Your task to perform on an android device: Play the last video I watched on Youtube Image 0: 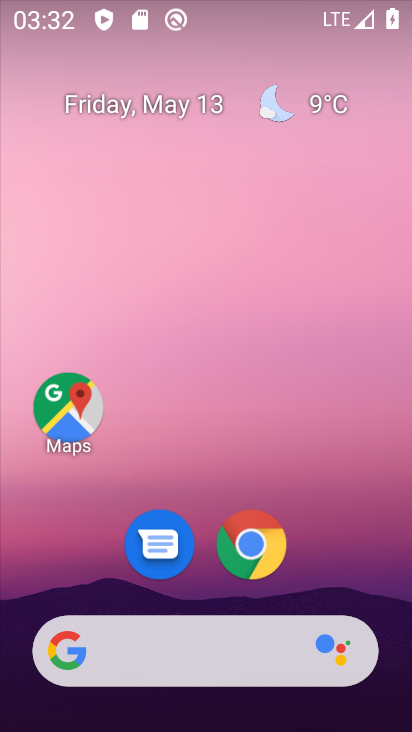
Step 0: drag from (346, 536) to (213, 9)
Your task to perform on an android device: Play the last video I watched on Youtube Image 1: 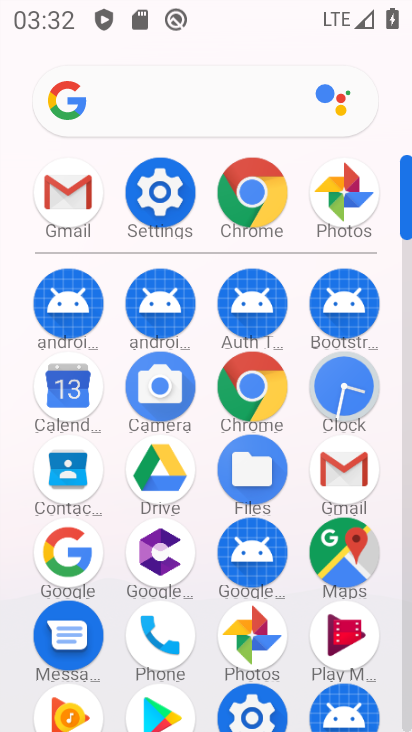
Step 1: drag from (1, 546) to (23, 306)
Your task to perform on an android device: Play the last video I watched on Youtube Image 2: 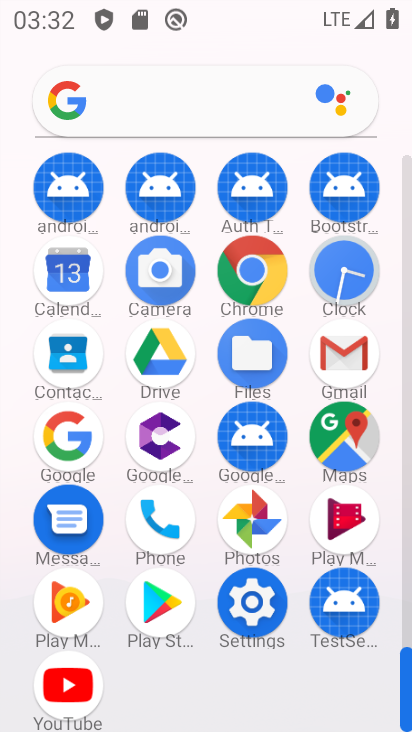
Step 2: click (71, 677)
Your task to perform on an android device: Play the last video I watched on Youtube Image 3: 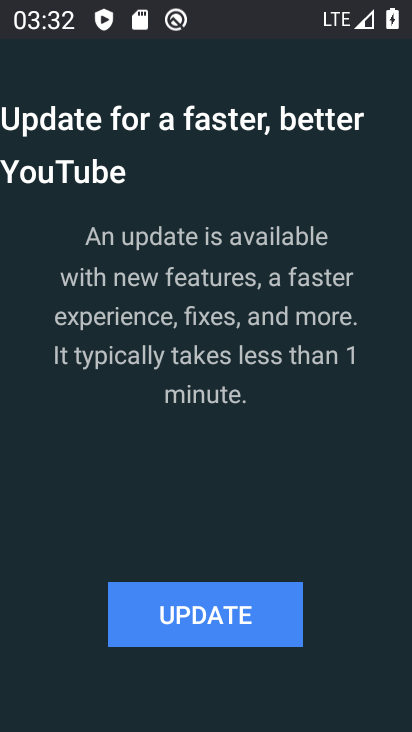
Step 3: click (239, 599)
Your task to perform on an android device: Play the last video I watched on Youtube Image 4: 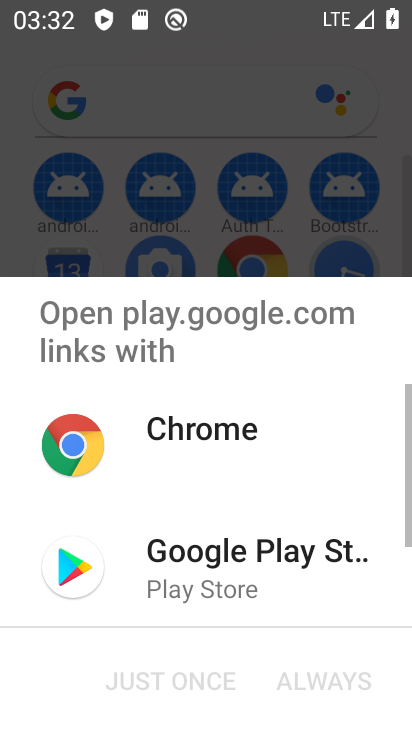
Step 4: click (230, 436)
Your task to perform on an android device: Play the last video I watched on Youtube Image 5: 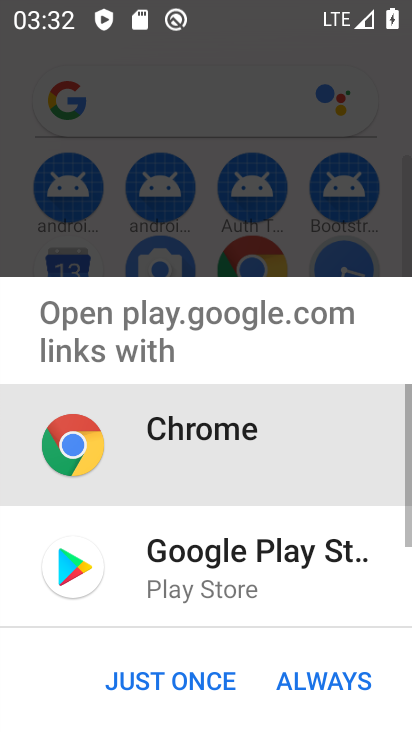
Step 5: click (133, 556)
Your task to perform on an android device: Play the last video I watched on Youtube Image 6: 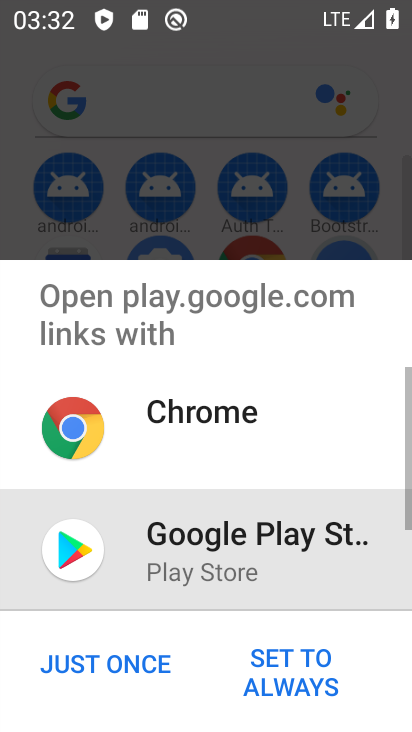
Step 6: click (131, 661)
Your task to perform on an android device: Play the last video I watched on Youtube Image 7: 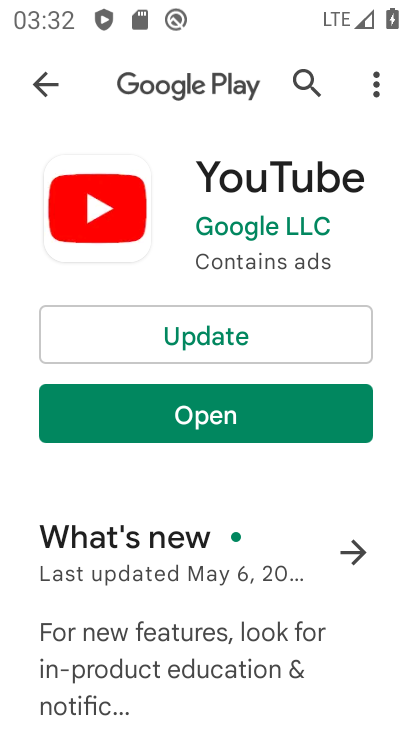
Step 7: click (206, 328)
Your task to perform on an android device: Play the last video I watched on Youtube Image 8: 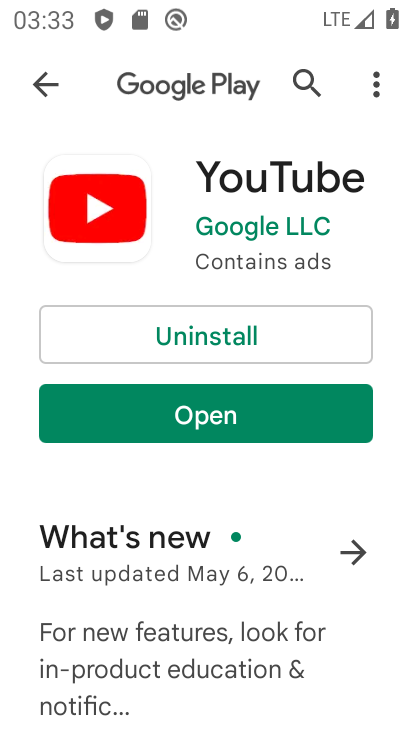
Step 8: click (191, 416)
Your task to perform on an android device: Play the last video I watched on Youtube Image 9: 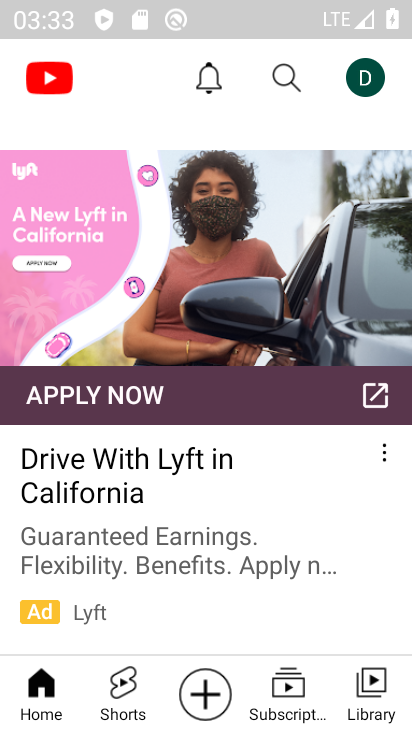
Step 9: click (366, 691)
Your task to perform on an android device: Play the last video I watched on Youtube Image 10: 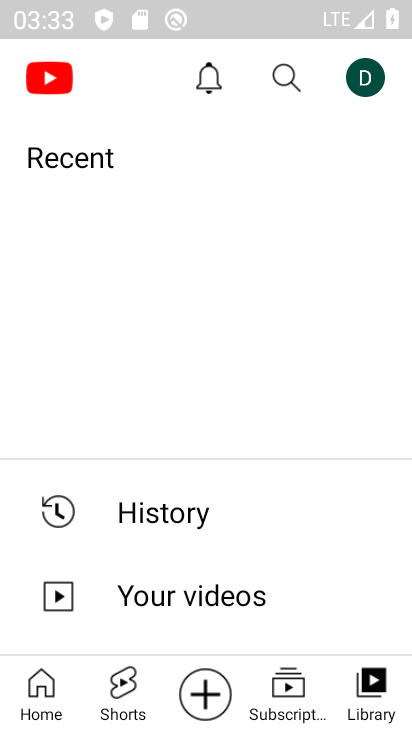
Step 10: click (356, 702)
Your task to perform on an android device: Play the last video I watched on Youtube Image 11: 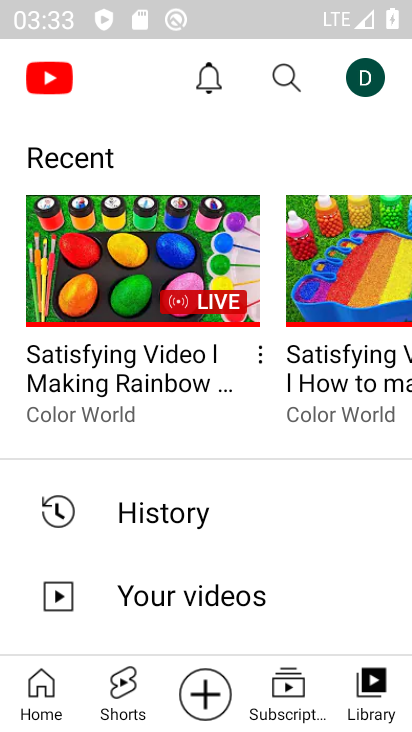
Step 11: click (170, 241)
Your task to perform on an android device: Play the last video I watched on Youtube Image 12: 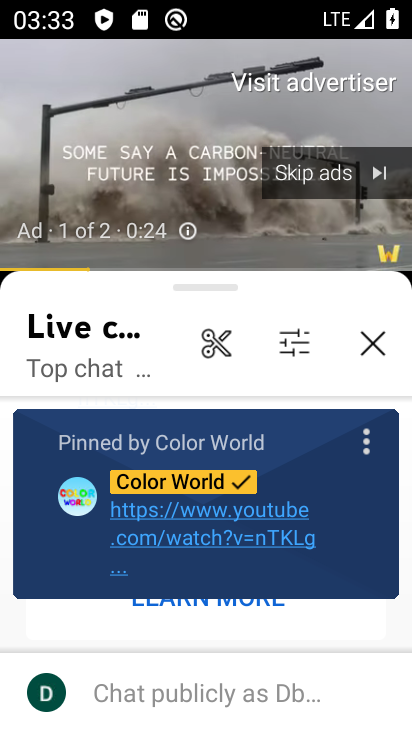
Step 12: click (365, 182)
Your task to perform on an android device: Play the last video I watched on Youtube Image 13: 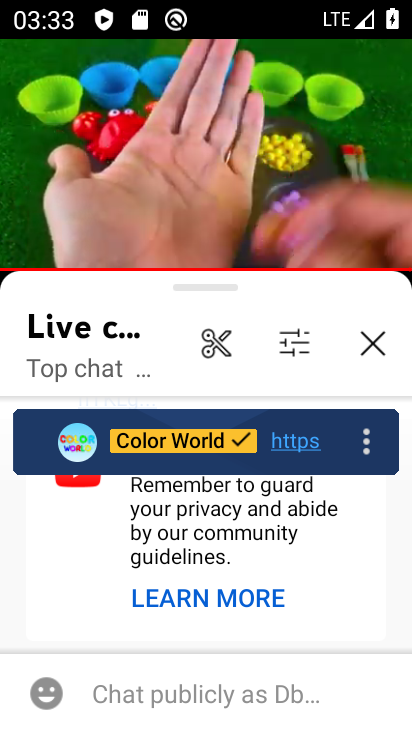
Step 13: task complete